Your task to perform on an android device: choose inbox layout in the gmail app Image 0: 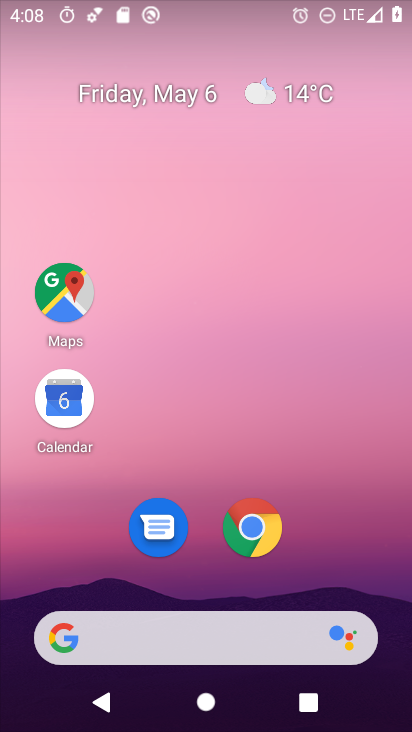
Step 0: drag from (342, 547) to (331, 127)
Your task to perform on an android device: choose inbox layout in the gmail app Image 1: 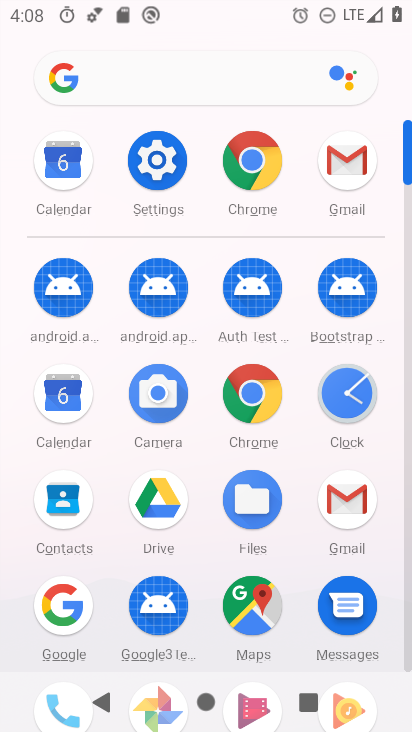
Step 1: click (354, 165)
Your task to perform on an android device: choose inbox layout in the gmail app Image 2: 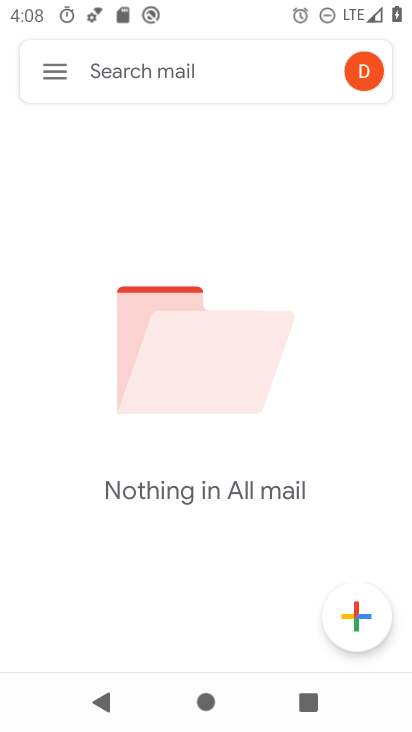
Step 2: click (58, 65)
Your task to perform on an android device: choose inbox layout in the gmail app Image 3: 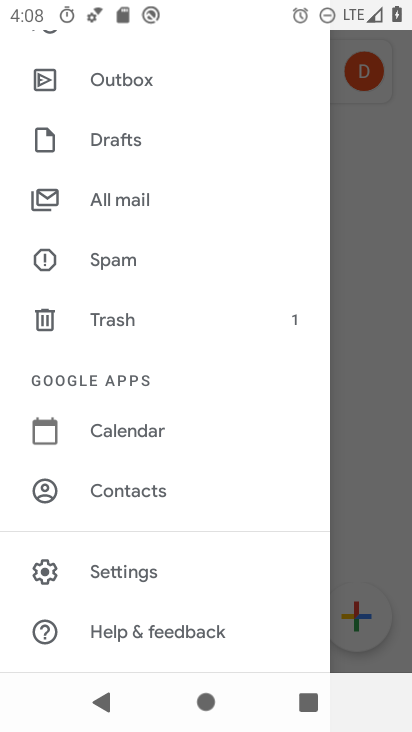
Step 3: click (147, 569)
Your task to perform on an android device: choose inbox layout in the gmail app Image 4: 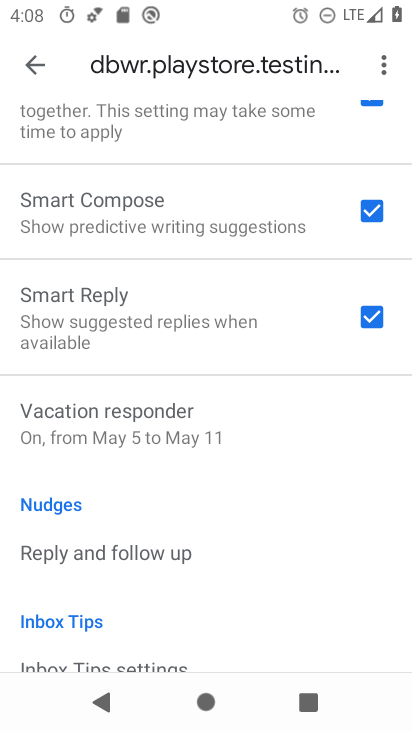
Step 4: drag from (167, 148) to (231, 677)
Your task to perform on an android device: choose inbox layout in the gmail app Image 5: 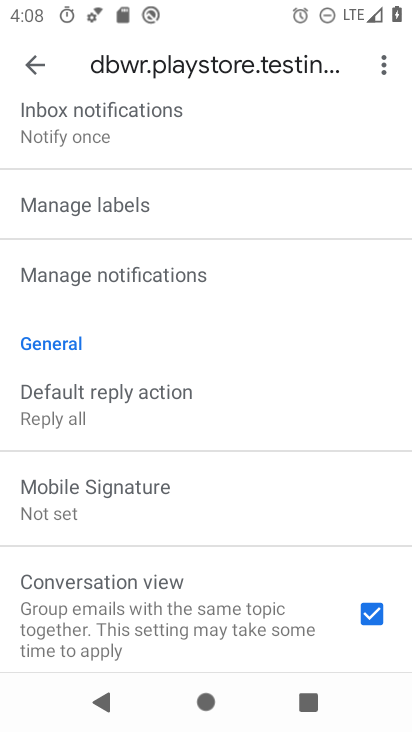
Step 5: drag from (175, 226) to (224, 679)
Your task to perform on an android device: choose inbox layout in the gmail app Image 6: 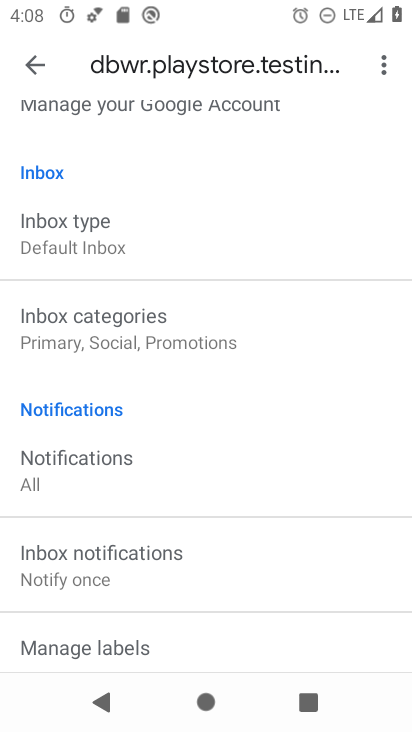
Step 6: drag from (158, 238) to (236, 640)
Your task to perform on an android device: choose inbox layout in the gmail app Image 7: 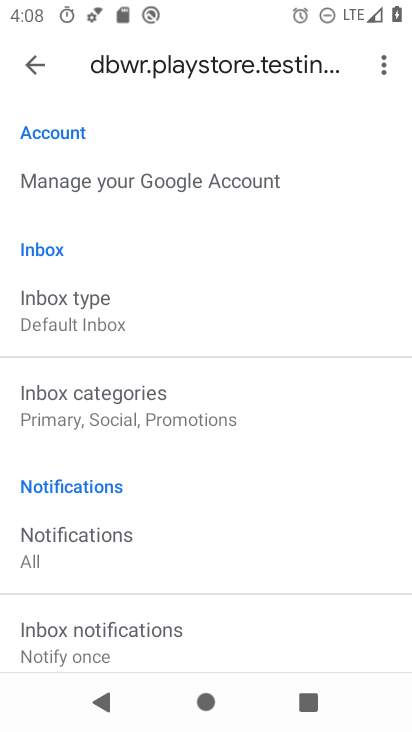
Step 7: click (109, 312)
Your task to perform on an android device: choose inbox layout in the gmail app Image 8: 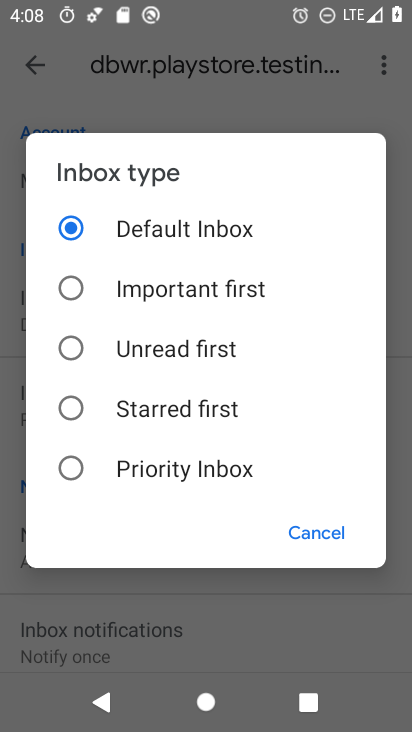
Step 8: task complete